Your task to perform on an android device: Do I have any events tomorrow? Image 0: 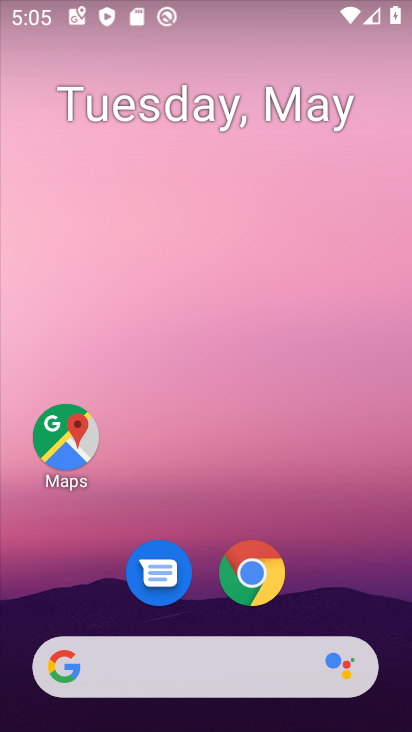
Step 0: drag from (179, 594) to (240, 44)
Your task to perform on an android device: Do I have any events tomorrow? Image 1: 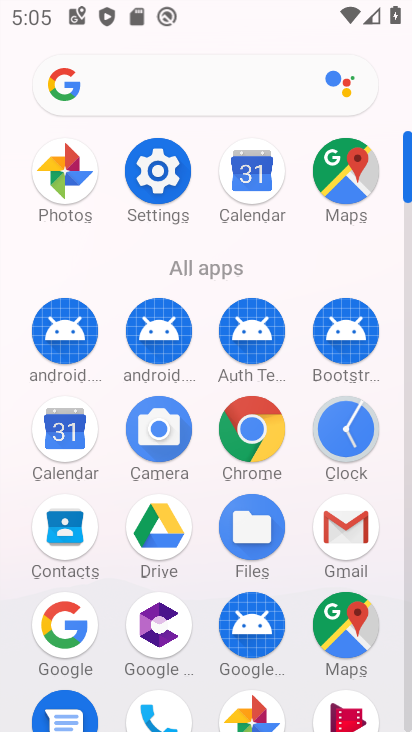
Step 1: click (242, 182)
Your task to perform on an android device: Do I have any events tomorrow? Image 2: 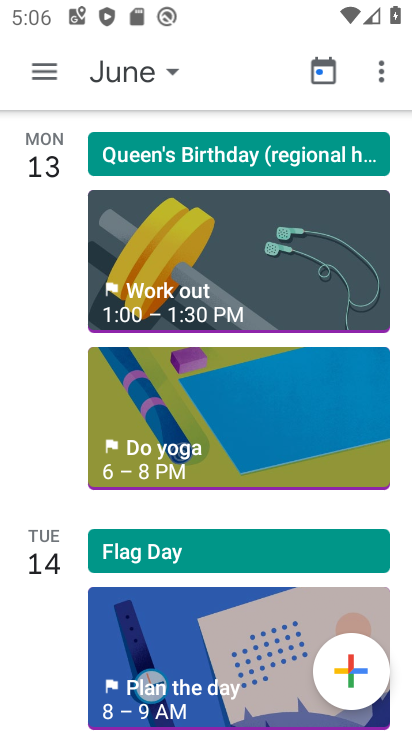
Step 2: click (116, 69)
Your task to perform on an android device: Do I have any events tomorrow? Image 3: 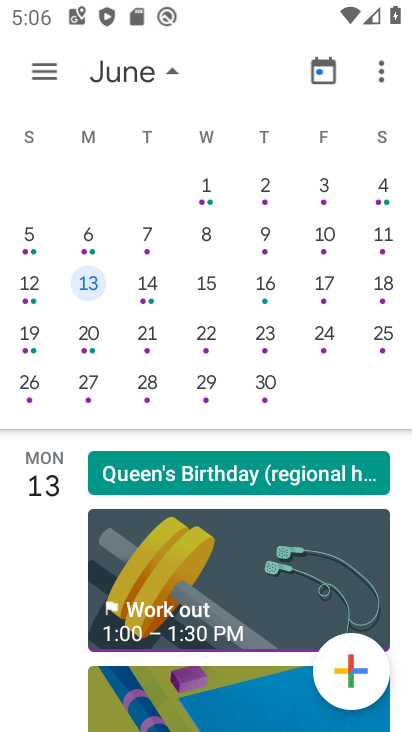
Step 3: drag from (27, 342) to (331, 281)
Your task to perform on an android device: Do I have any events tomorrow? Image 4: 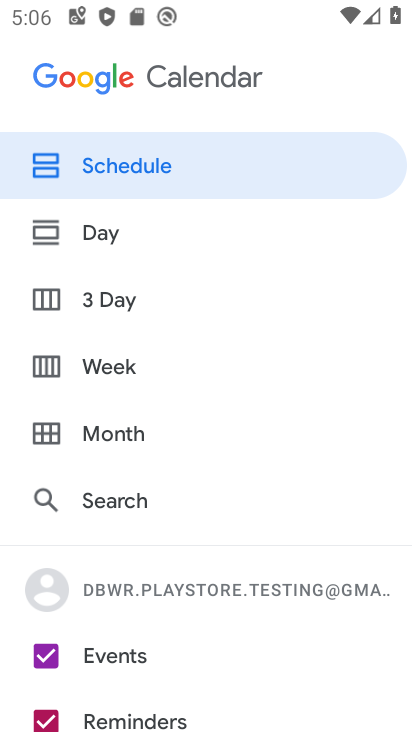
Step 4: click (139, 167)
Your task to perform on an android device: Do I have any events tomorrow? Image 5: 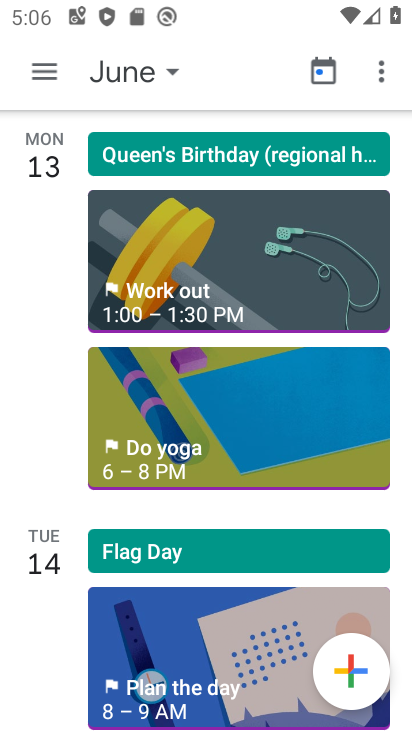
Step 5: click (158, 75)
Your task to perform on an android device: Do I have any events tomorrow? Image 6: 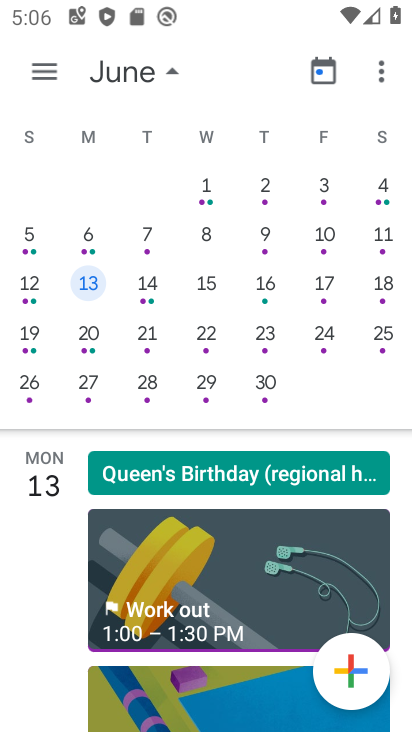
Step 6: drag from (33, 307) to (356, 255)
Your task to perform on an android device: Do I have any events tomorrow? Image 7: 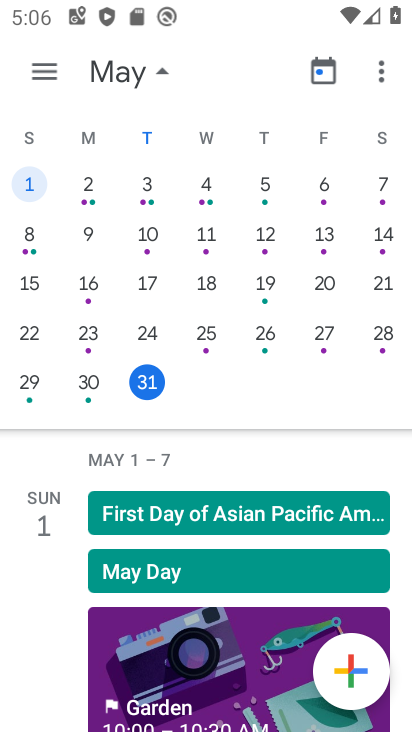
Step 7: drag from (372, 237) to (33, 264)
Your task to perform on an android device: Do I have any events tomorrow? Image 8: 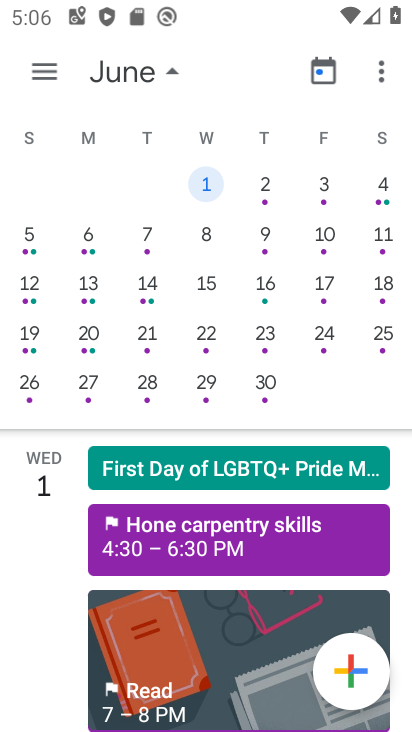
Step 8: click (197, 182)
Your task to perform on an android device: Do I have any events tomorrow? Image 9: 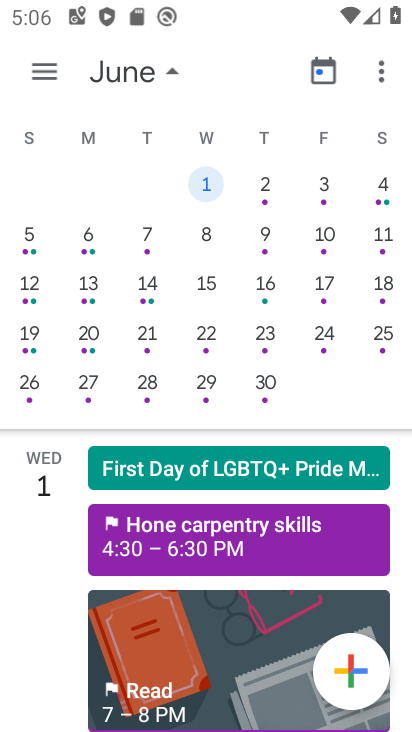
Step 9: click (185, 457)
Your task to perform on an android device: Do I have any events tomorrow? Image 10: 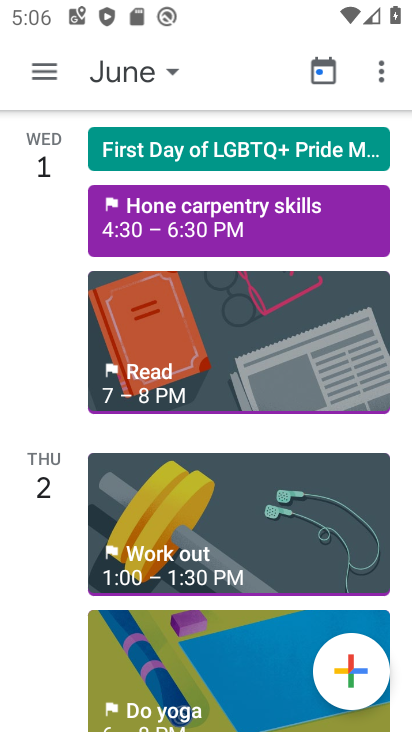
Step 10: task complete